Your task to perform on an android device: Add macbook pro 15 inch to the cart on newegg Image 0: 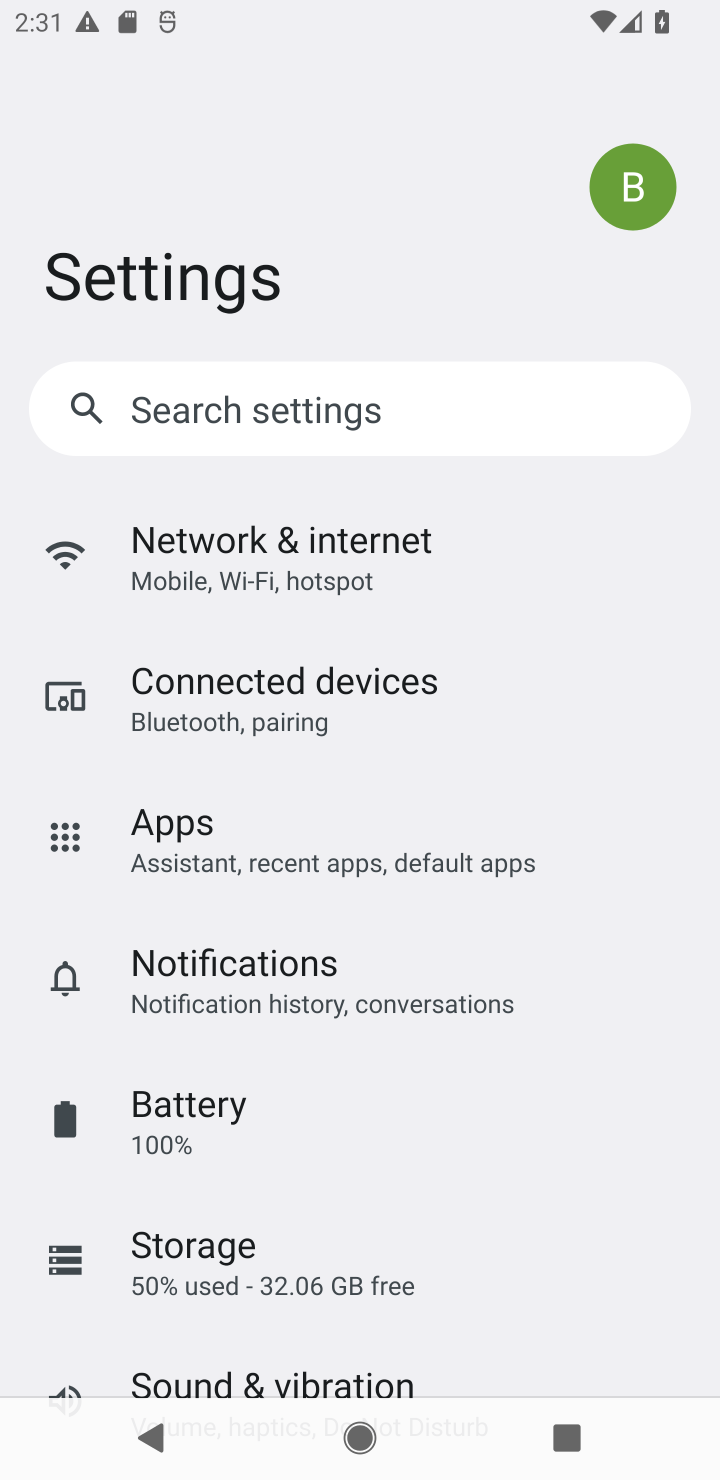
Step 0: press home button
Your task to perform on an android device: Add macbook pro 15 inch to the cart on newegg Image 1: 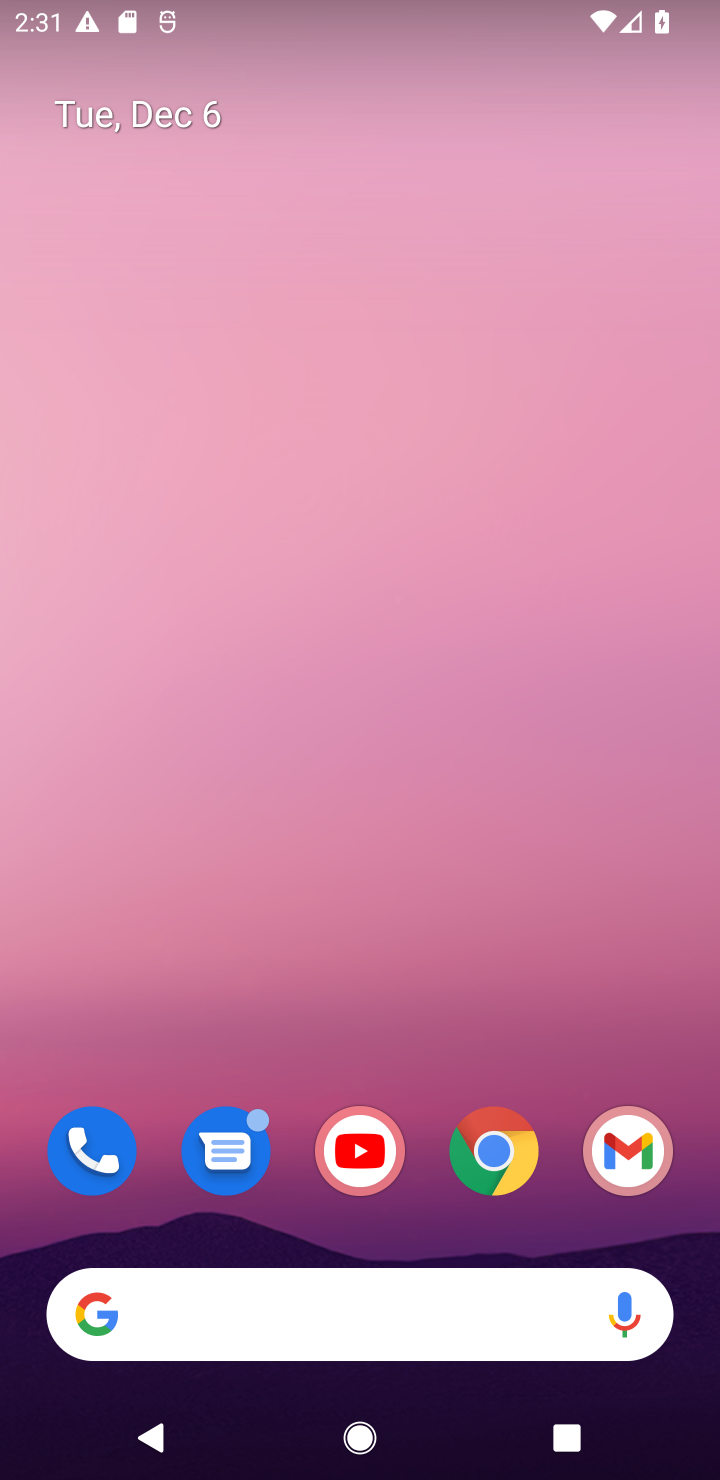
Step 1: click (487, 1161)
Your task to perform on an android device: Add macbook pro 15 inch to the cart on newegg Image 2: 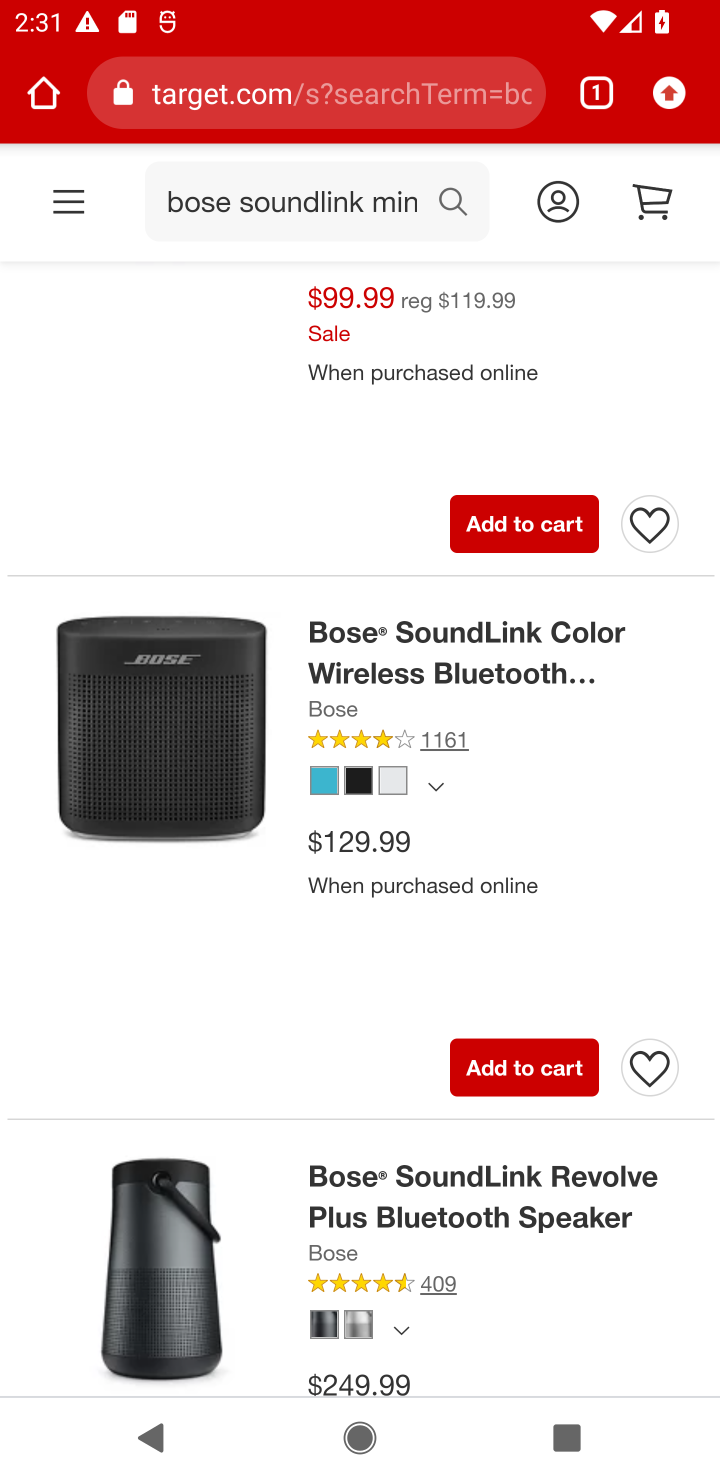
Step 2: click (271, 90)
Your task to perform on an android device: Add macbook pro 15 inch to the cart on newegg Image 3: 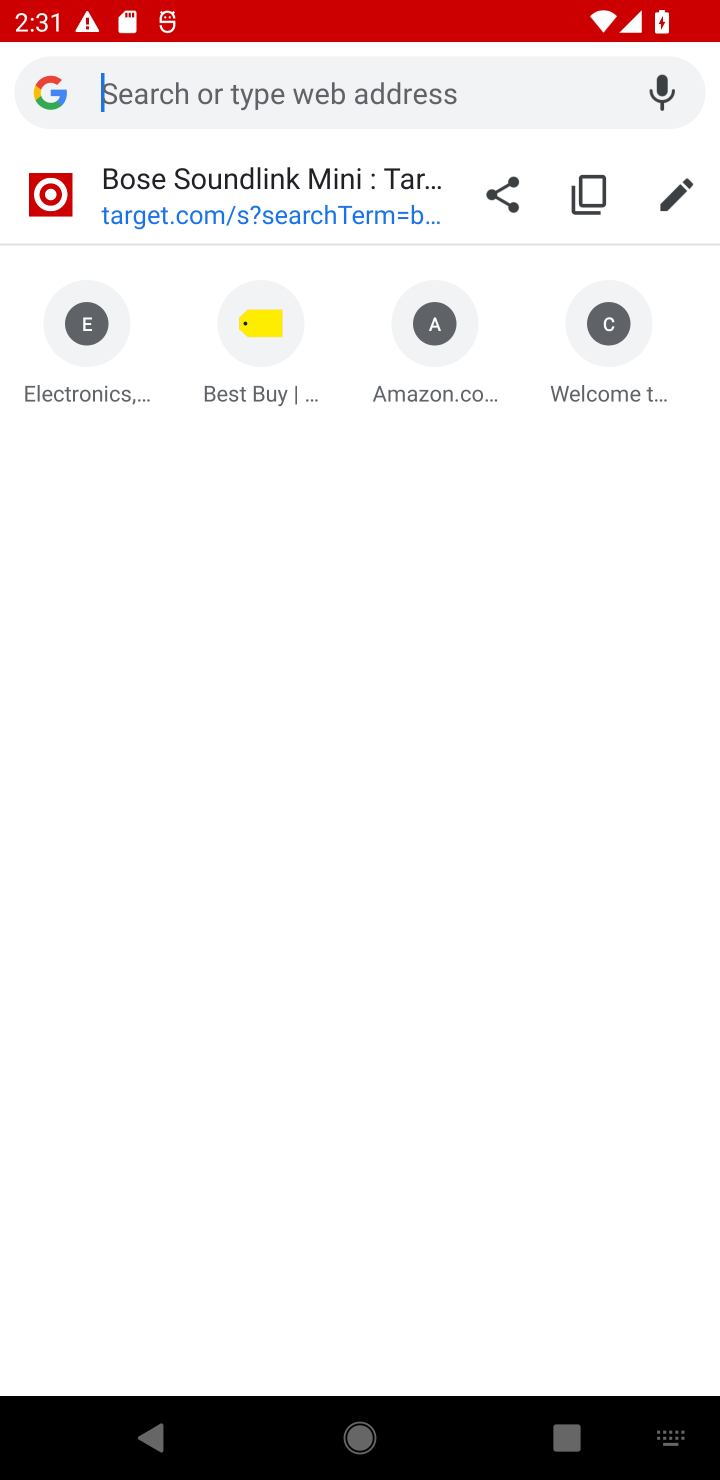
Step 3: type "newegg.com"
Your task to perform on an android device: Add macbook pro 15 inch to the cart on newegg Image 4: 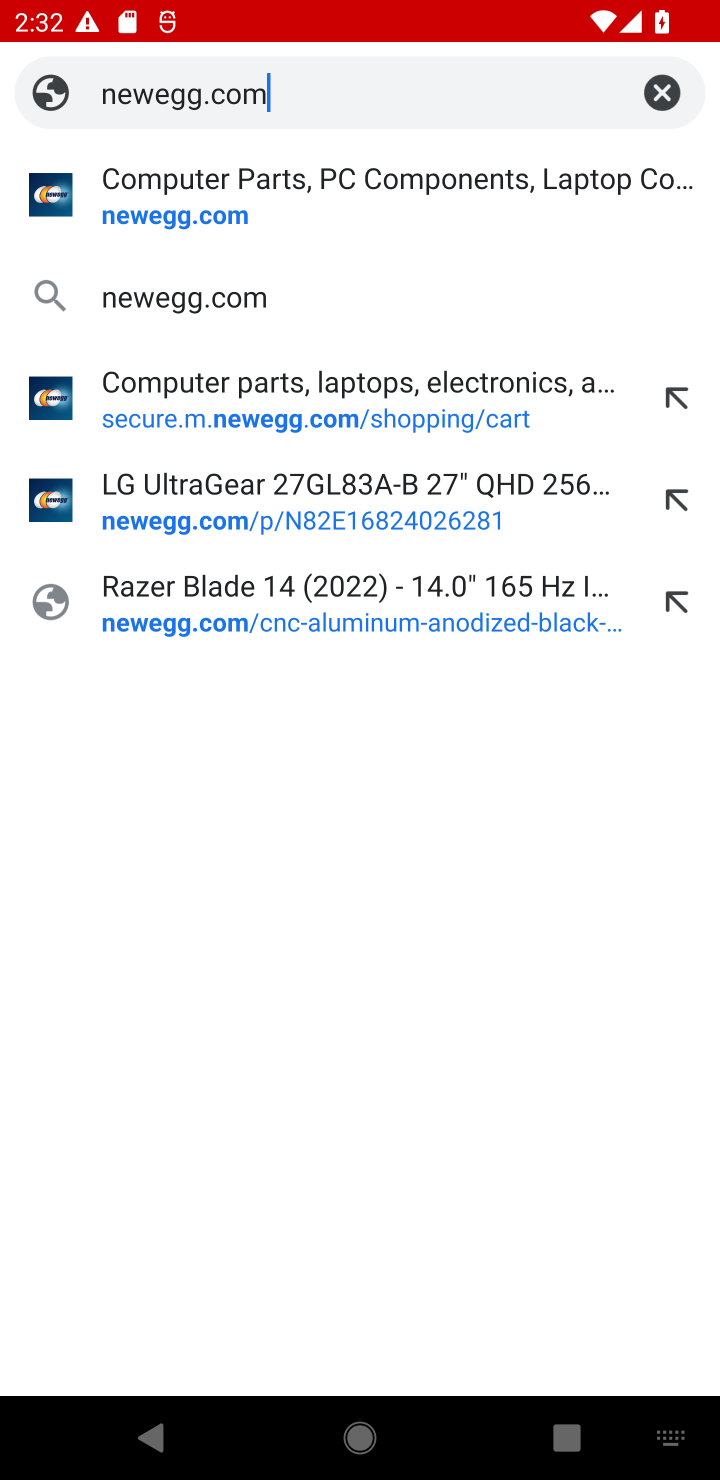
Step 4: click (153, 185)
Your task to perform on an android device: Add macbook pro 15 inch to the cart on newegg Image 5: 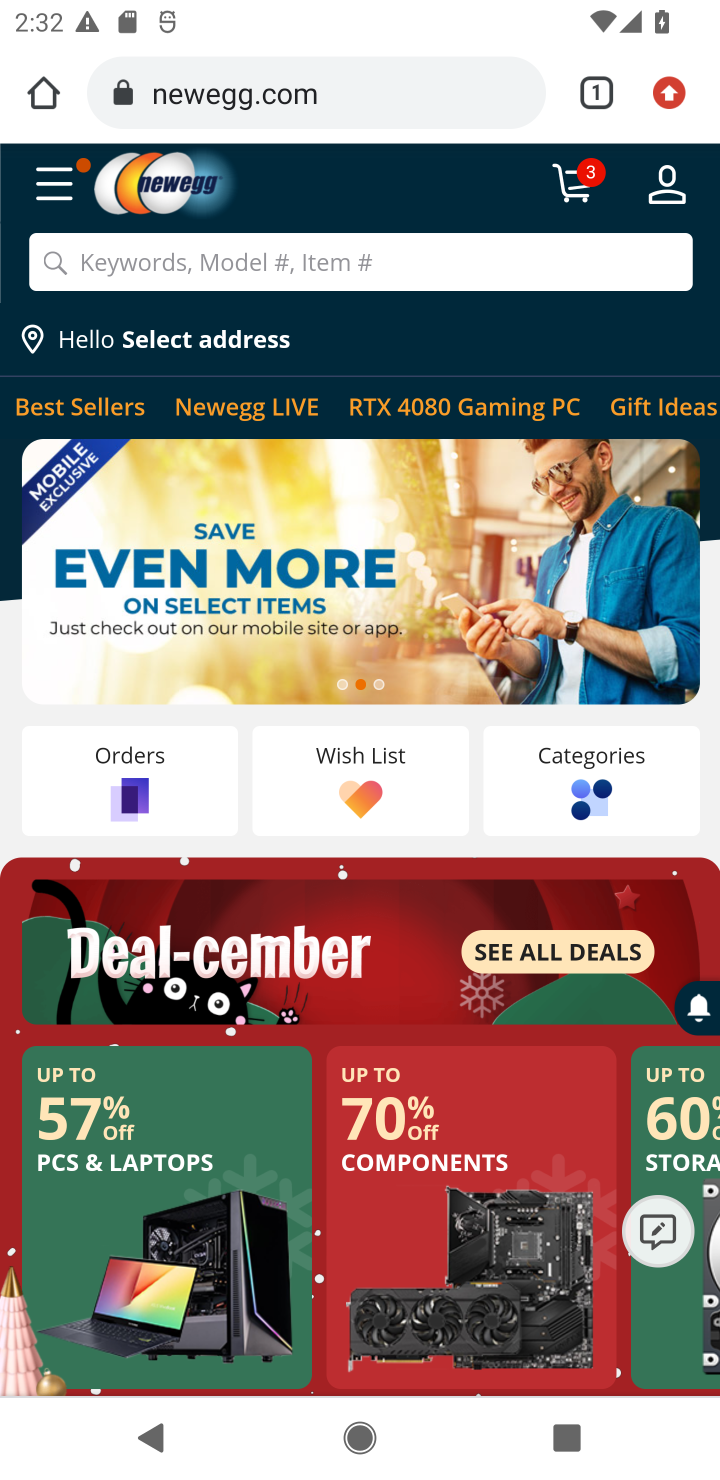
Step 5: click (303, 263)
Your task to perform on an android device: Add macbook pro 15 inch to the cart on newegg Image 6: 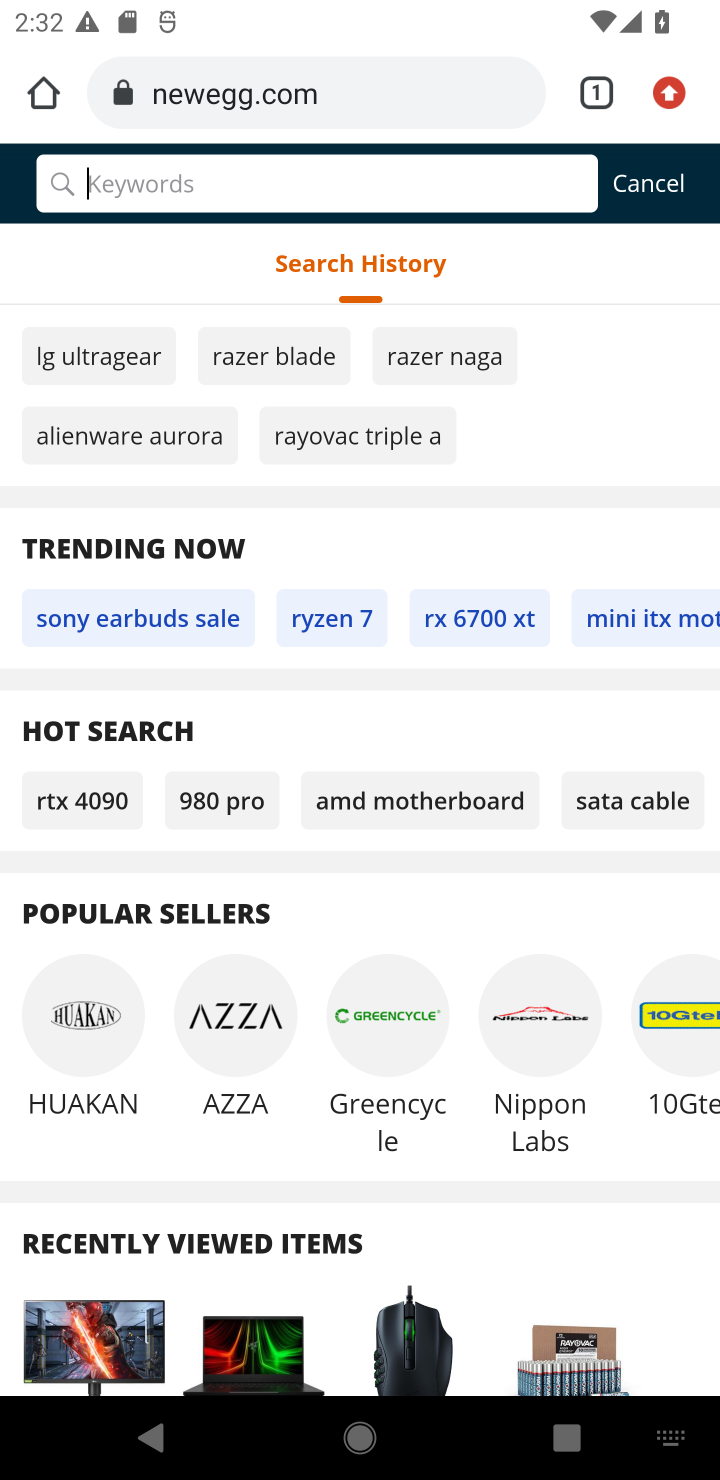
Step 6: type "macbook pro 15 inch"
Your task to perform on an android device: Add macbook pro 15 inch to the cart on newegg Image 7: 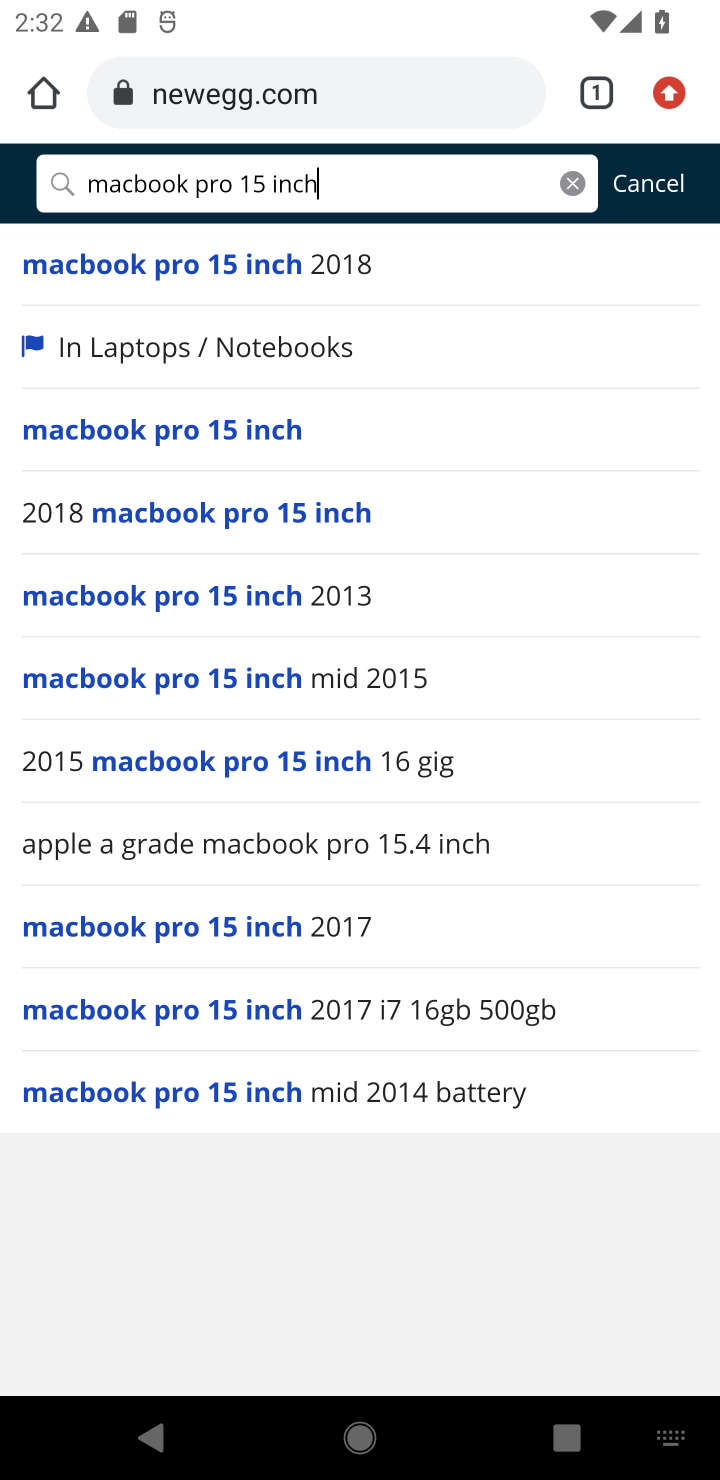
Step 7: click (261, 430)
Your task to perform on an android device: Add macbook pro 15 inch to the cart on newegg Image 8: 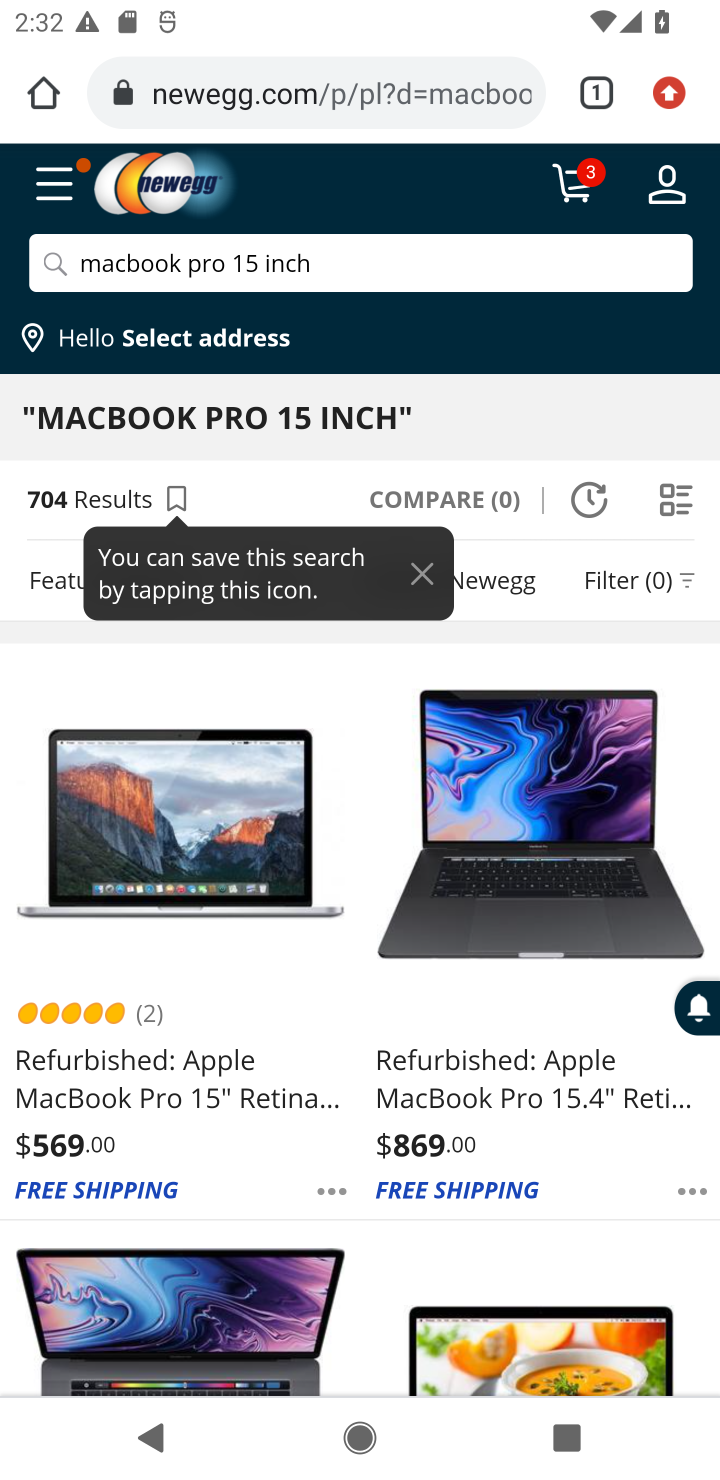
Step 8: click (140, 1053)
Your task to perform on an android device: Add macbook pro 15 inch to the cart on newegg Image 9: 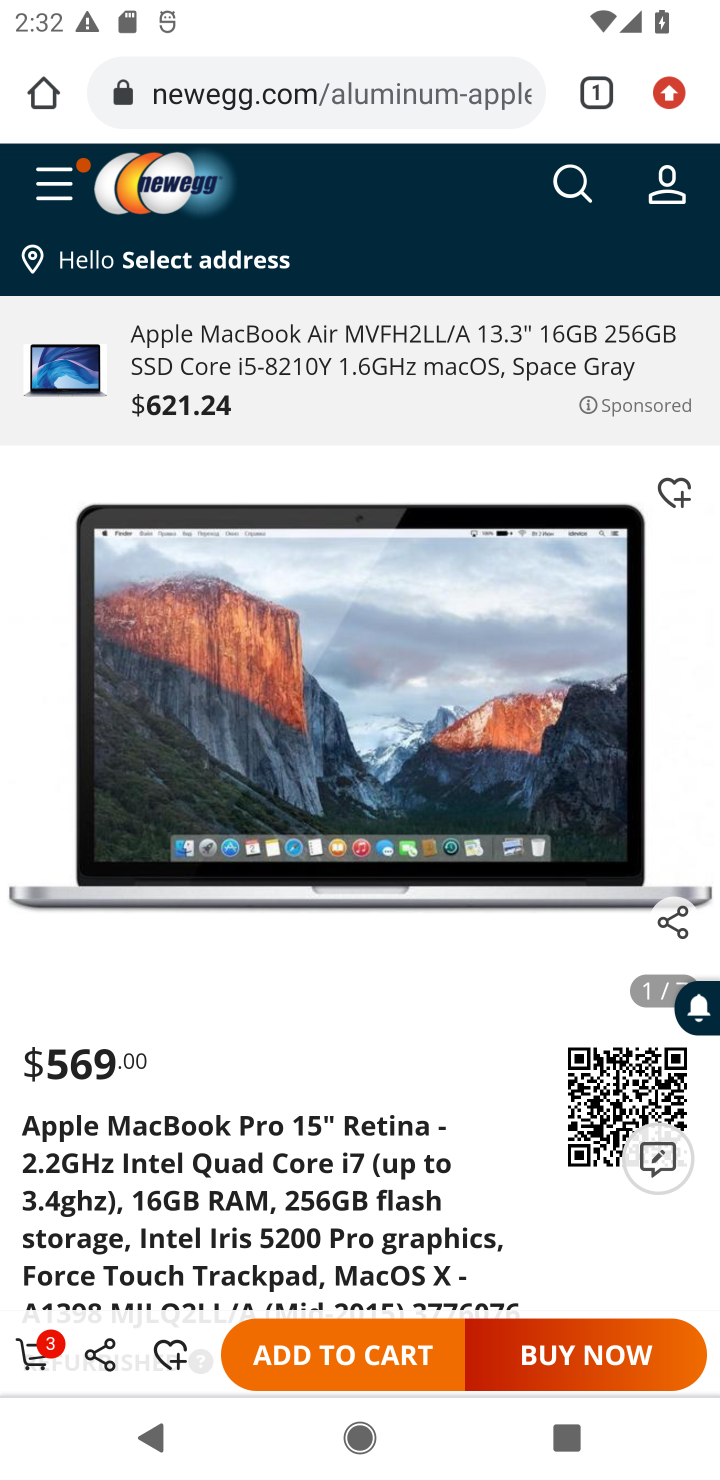
Step 9: click (380, 1363)
Your task to perform on an android device: Add macbook pro 15 inch to the cart on newegg Image 10: 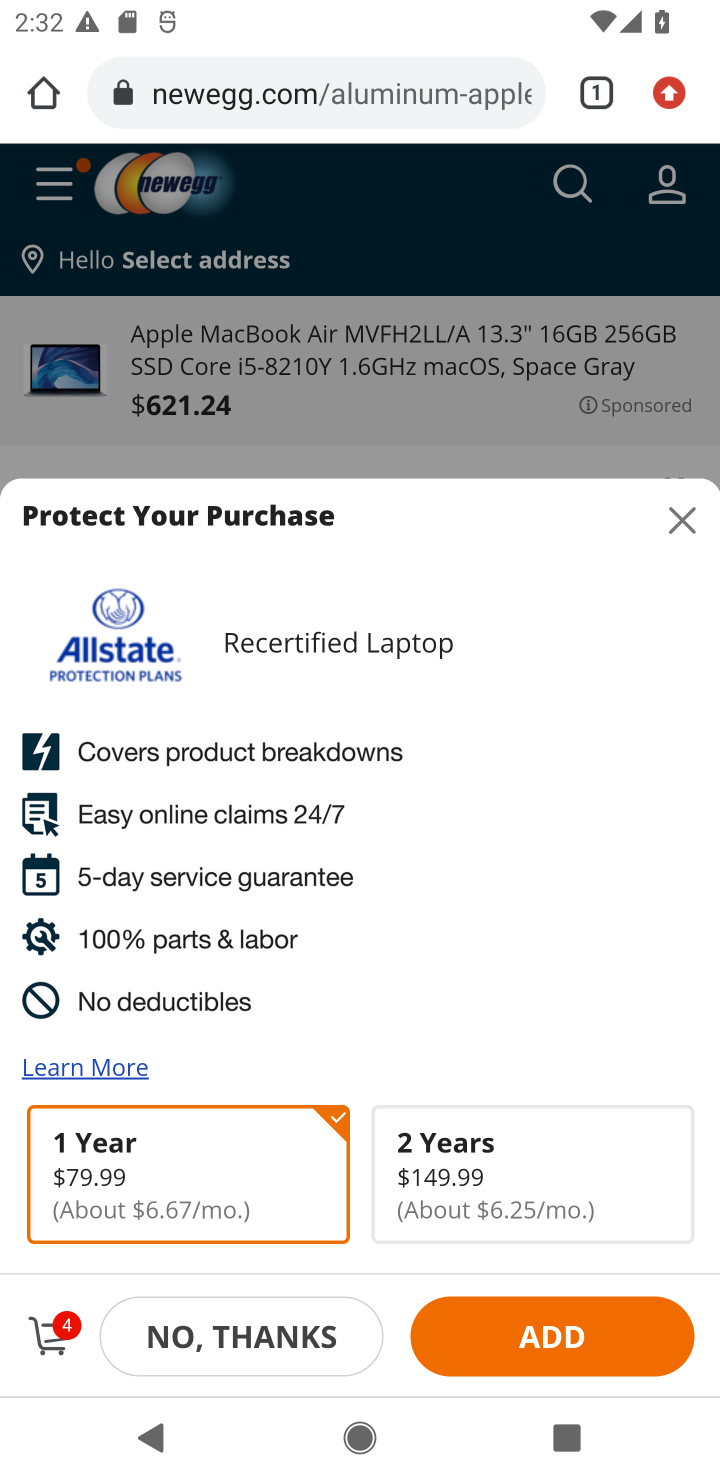
Step 10: task complete